Your task to perform on an android device: Open accessibility settings Image 0: 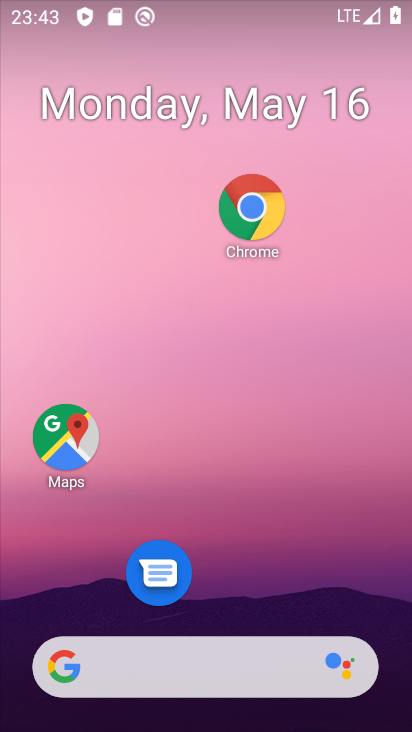
Step 0: drag from (220, 652) to (252, 41)
Your task to perform on an android device: Open accessibility settings Image 1: 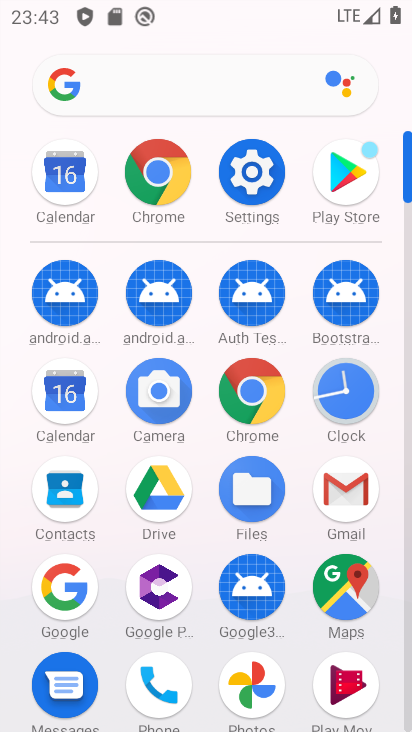
Step 1: click (246, 177)
Your task to perform on an android device: Open accessibility settings Image 2: 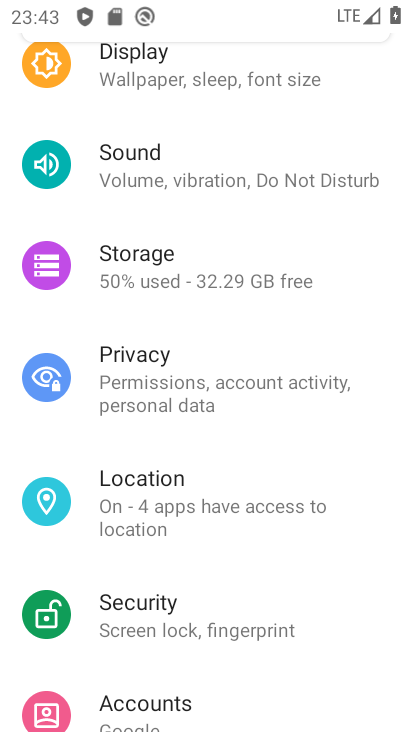
Step 2: drag from (118, 581) to (162, 89)
Your task to perform on an android device: Open accessibility settings Image 3: 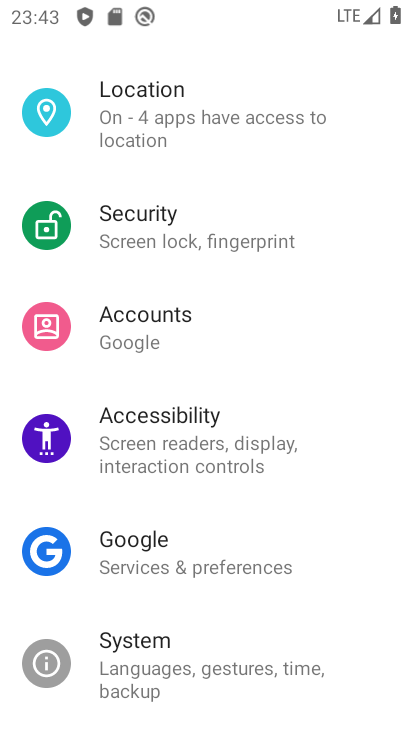
Step 3: click (143, 463)
Your task to perform on an android device: Open accessibility settings Image 4: 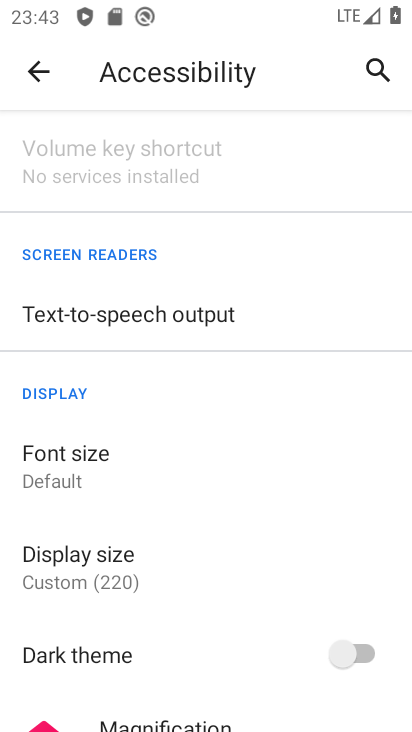
Step 4: task complete